Your task to perform on an android device: Go to Maps Image 0: 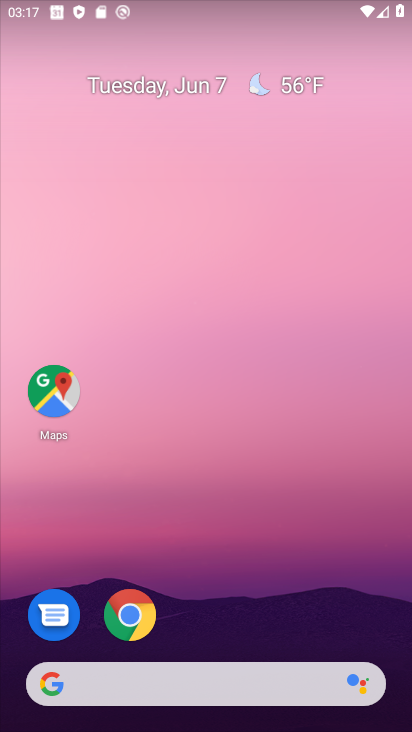
Step 0: click (50, 403)
Your task to perform on an android device: Go to Maps Image 1: 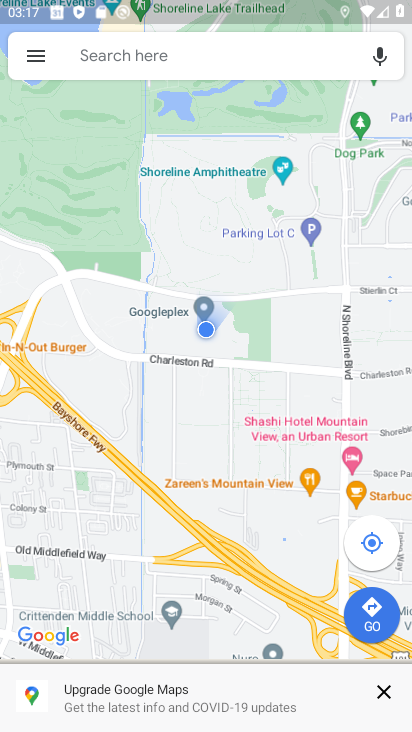
Step 1: task complete